Your task to perform on an android device: Open battery settings Image 0: 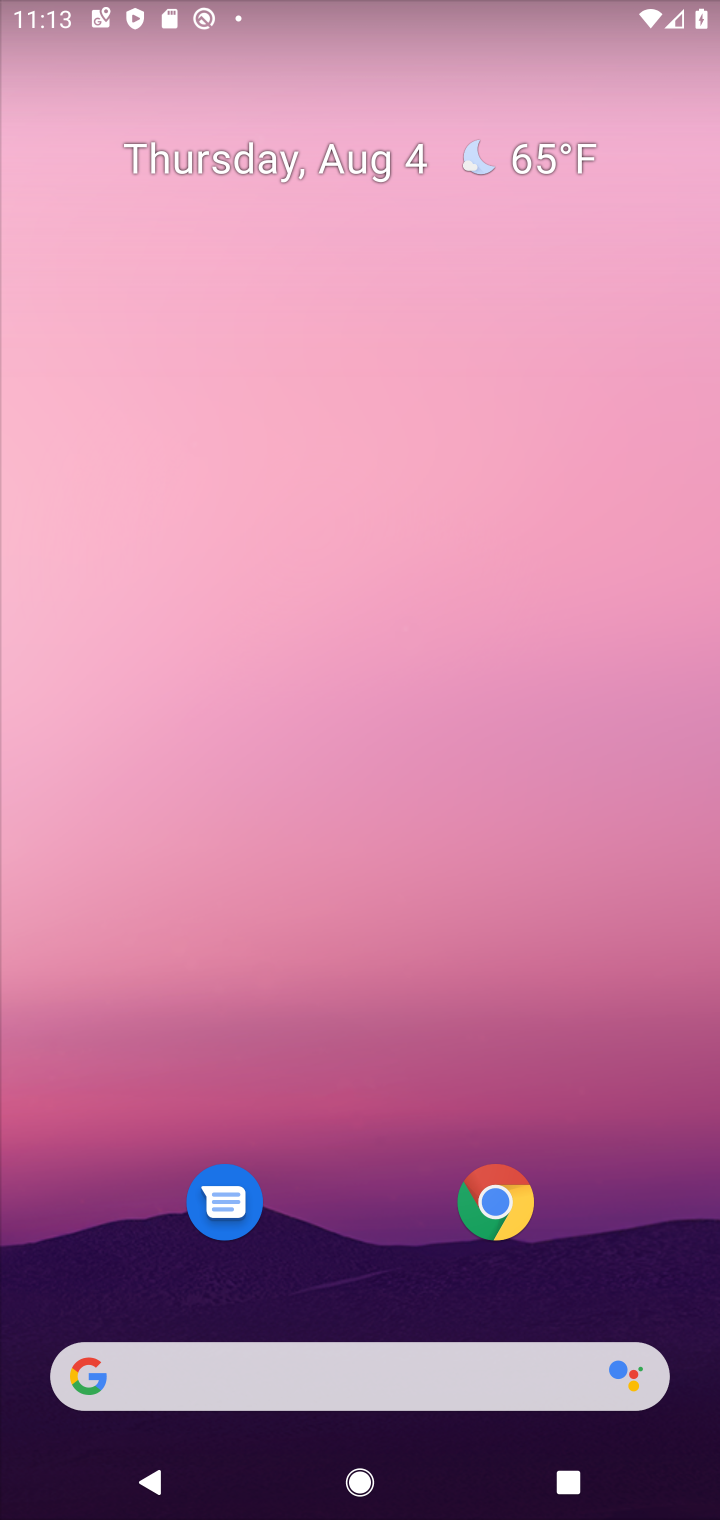
Step 0: drag from (268, 1274) to (472, 79)
Your task to perform on an android device: Open battery settings Image 1: 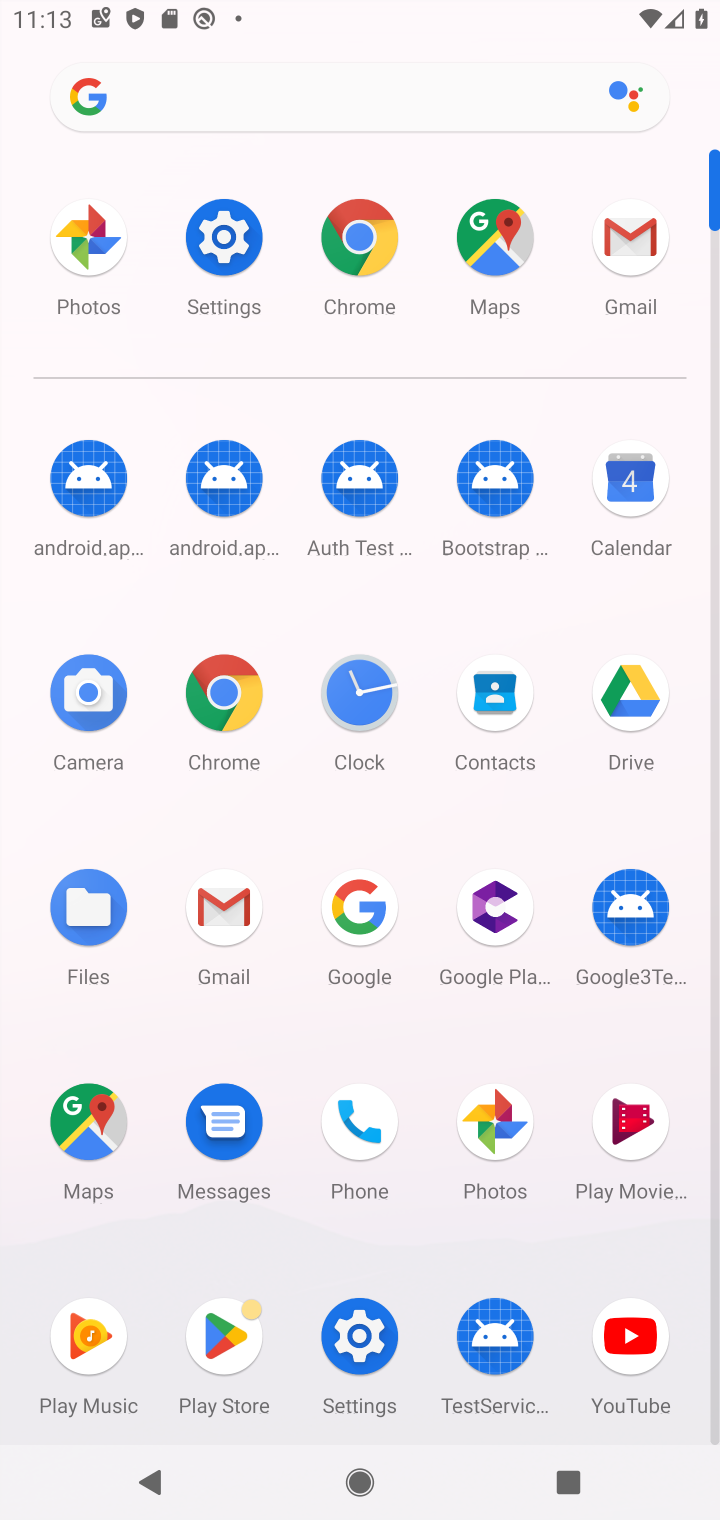
Step 1: click (264, 258)
Your task to perform on an android device: Open battery settings Image 2: 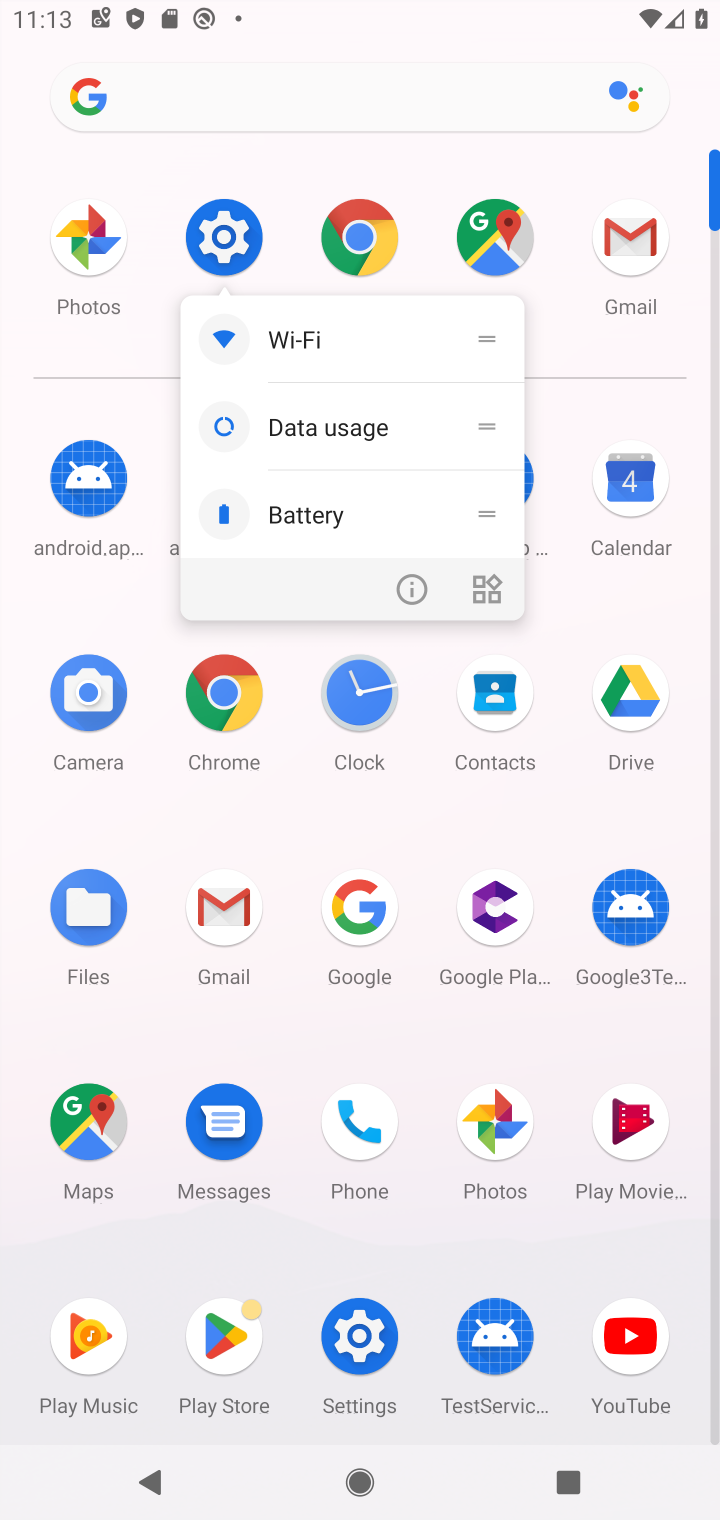
Step 2: click (234, 234)
Your task to perform on an android device: Open battery settings Image 3: 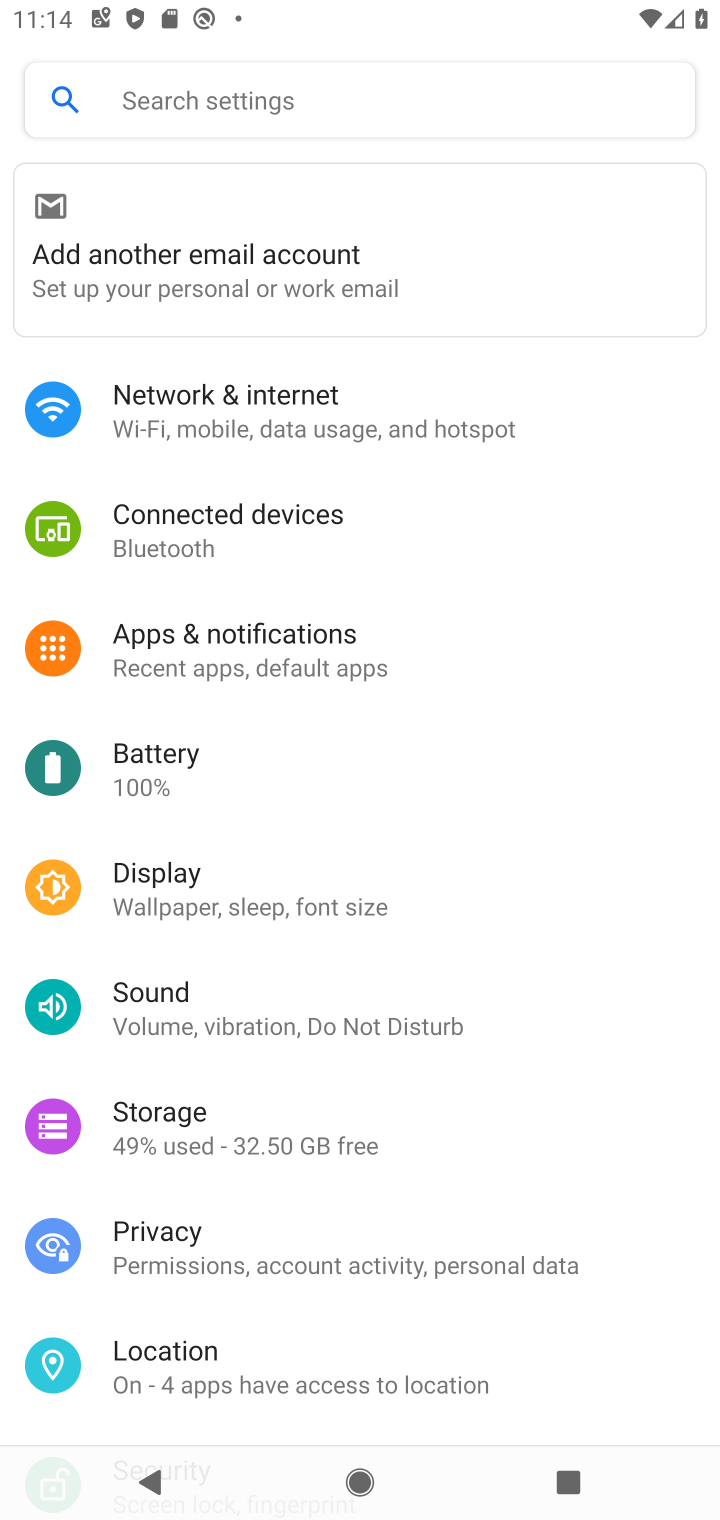
Step 3: click (213, 746)
Your task to perform on an android device: Open battery settings Image 4: 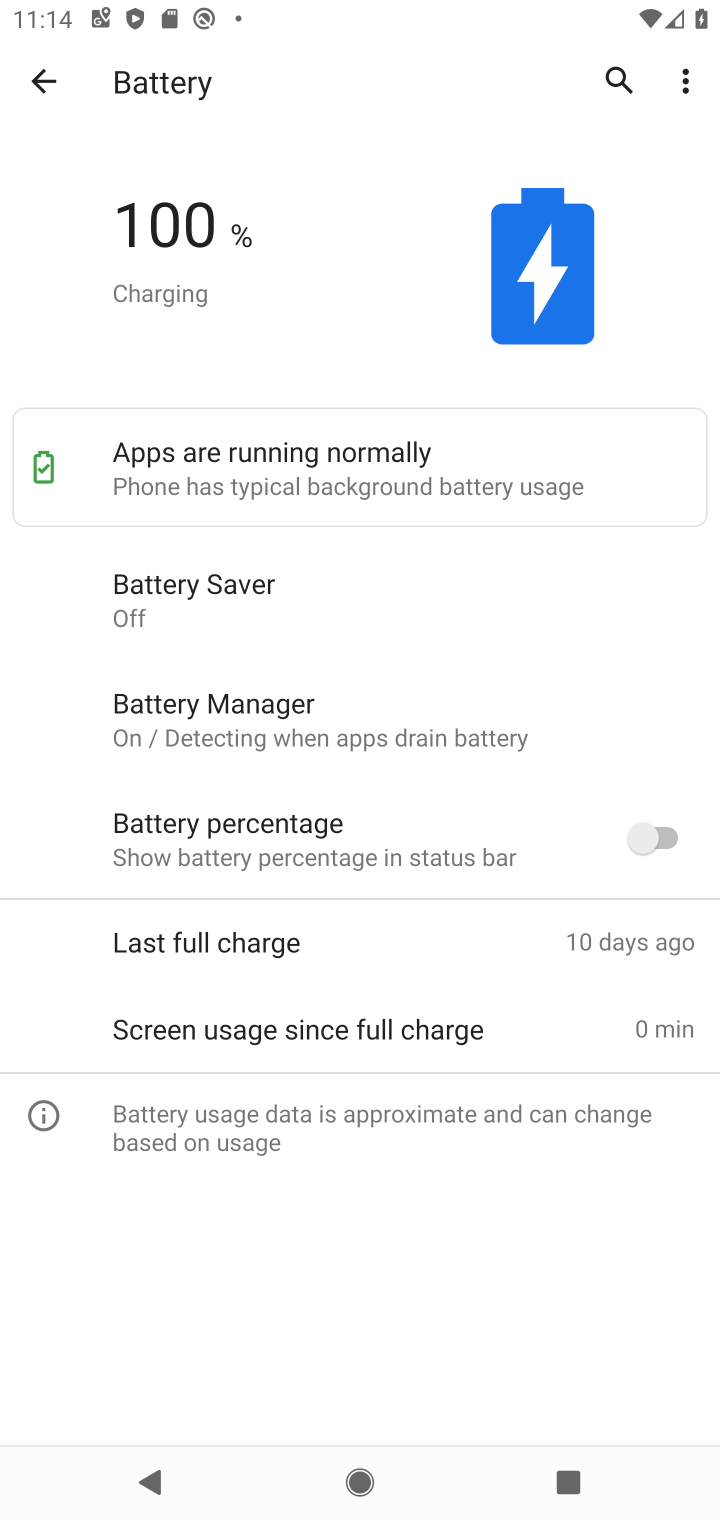
Step 4: task complete